Your task to perform on an android device: Search for seafood restaurants on Google Maps Image 0: 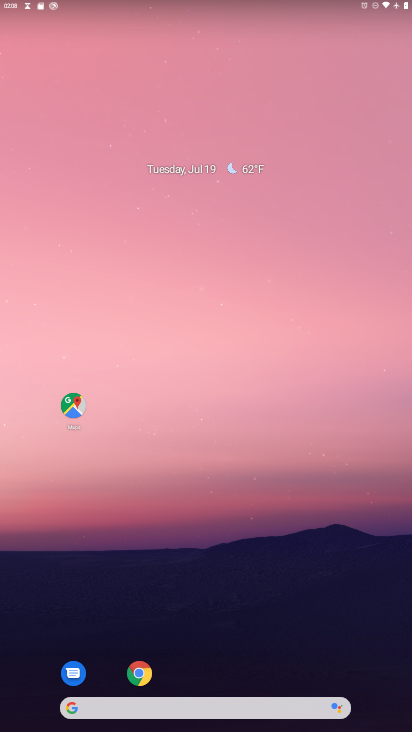
Step 0: drag from (228, 653) to (277, 159)
Your task to perform on an android device: Search for seafood restaurants on Google Maps Image 1: 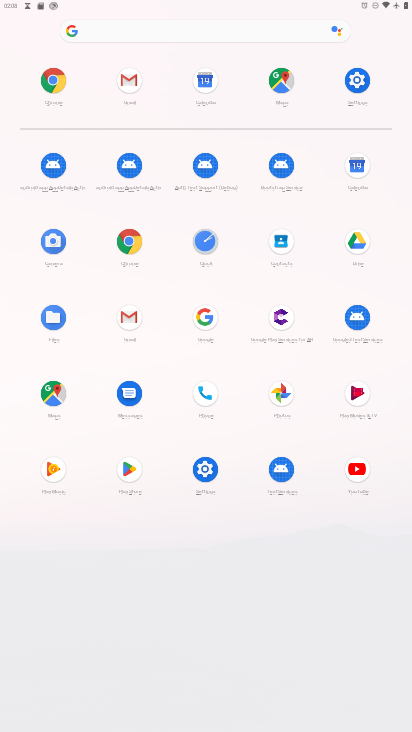
Step 1: click (46, 395)
Your task to perform on an android device: Search for seafood restaurants on Google Maps Image 2: 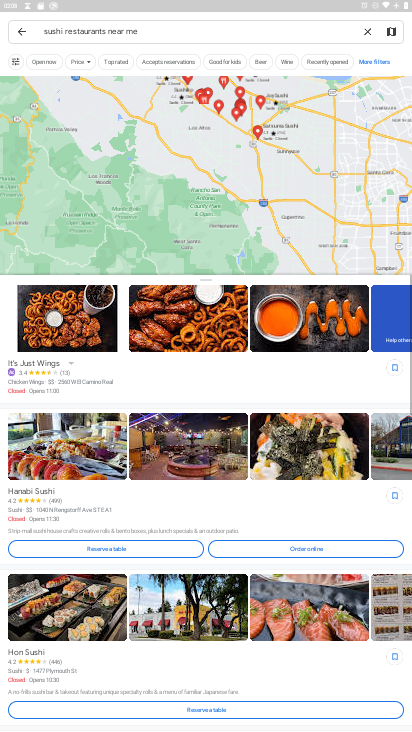
Step 2: click (372, 24)
Your task to perform on an android device: Search for seafood restaurants on Google Maps Image 3: 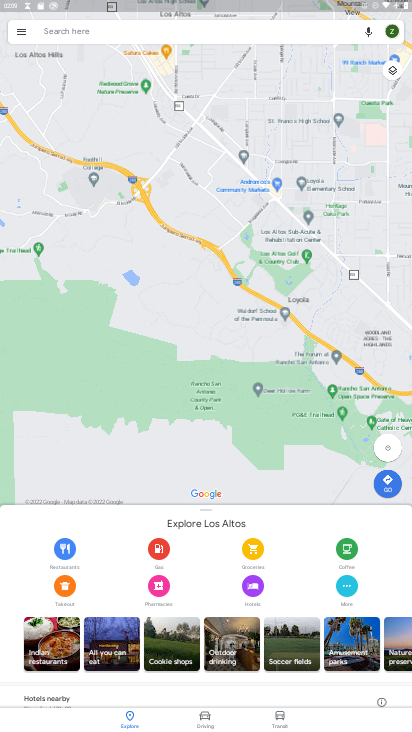
Step 3: click (190, 34)
Your task to perform on an android device: Search for seafood restaurants on Google Maps Image 4: 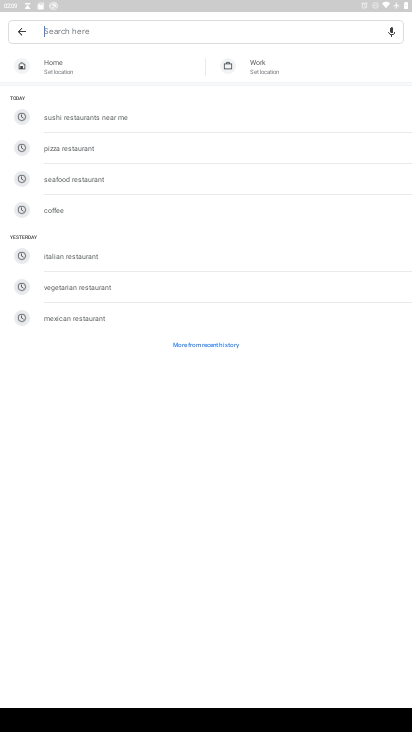
Step 4: click (99, 179)
Your task to perform on an android device: Search for seafood restaurants on Google Maps Image 5: 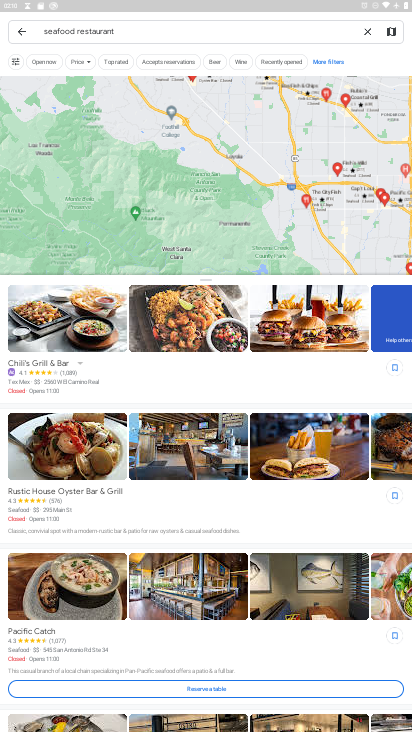
Step 5: task complete